Your task to perform on an android device: turn on the 24-hour format for clock Image 0: 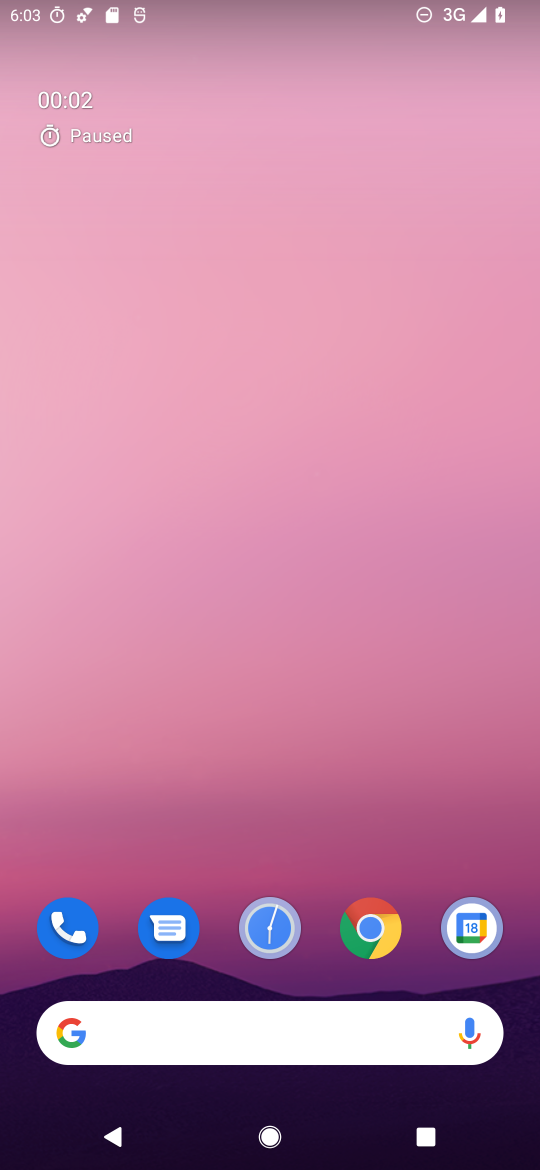
Step 0: drag from (348, 827) to (472, 25)
Your task to perform on an android device: turn on the 24-hour format for clock Image 1: 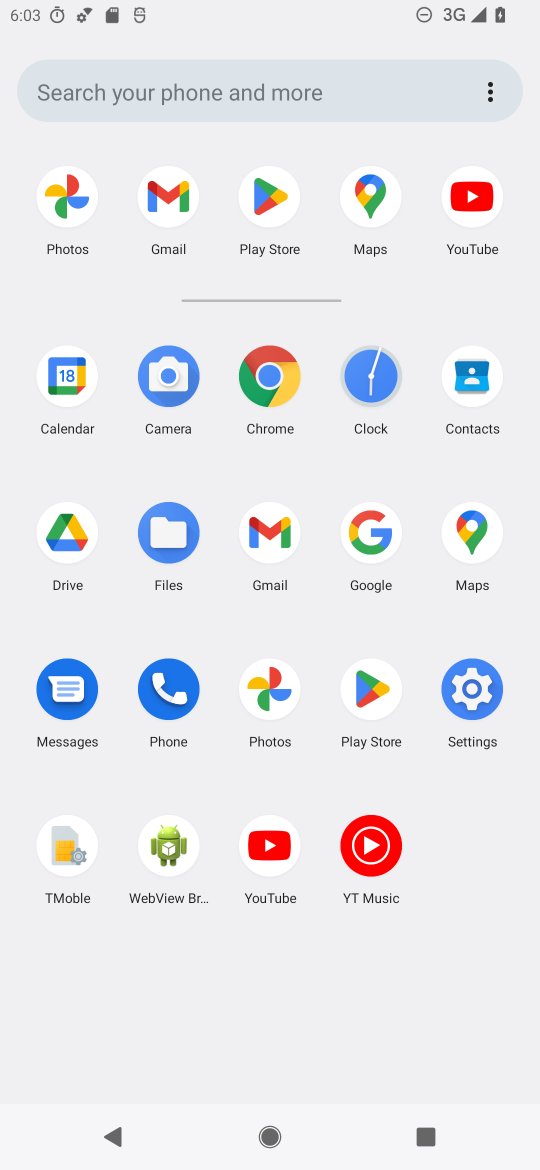
Step 1: click (376, 359)
Your task to perform on an android device: turn on the 24-hour format for clock Image 2: 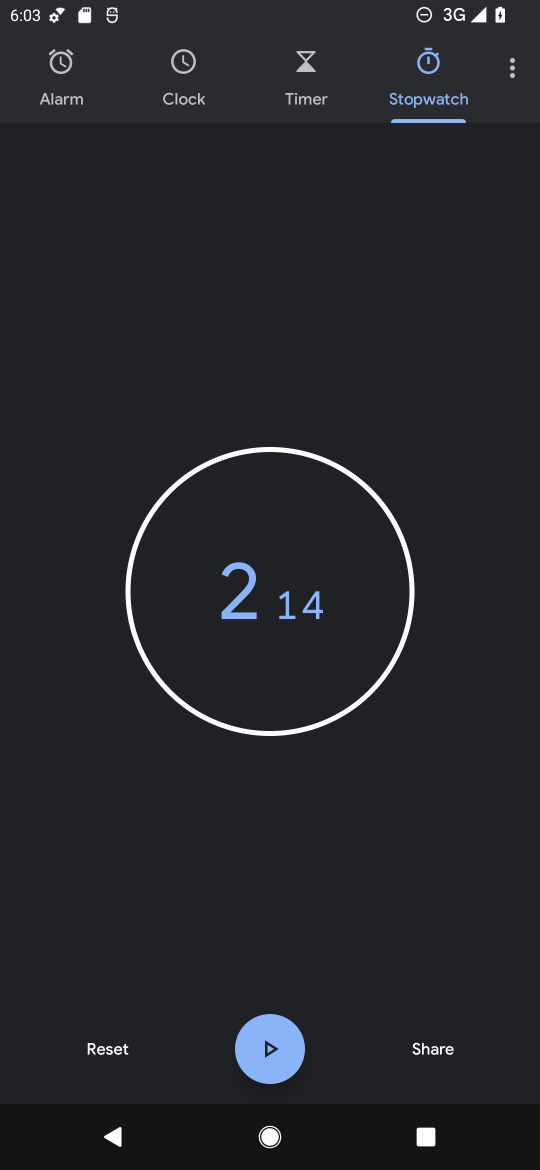
Step 2: click (510, 66)
Your task to perform on an android device: turn on the 24-hour format for clock Image 3: 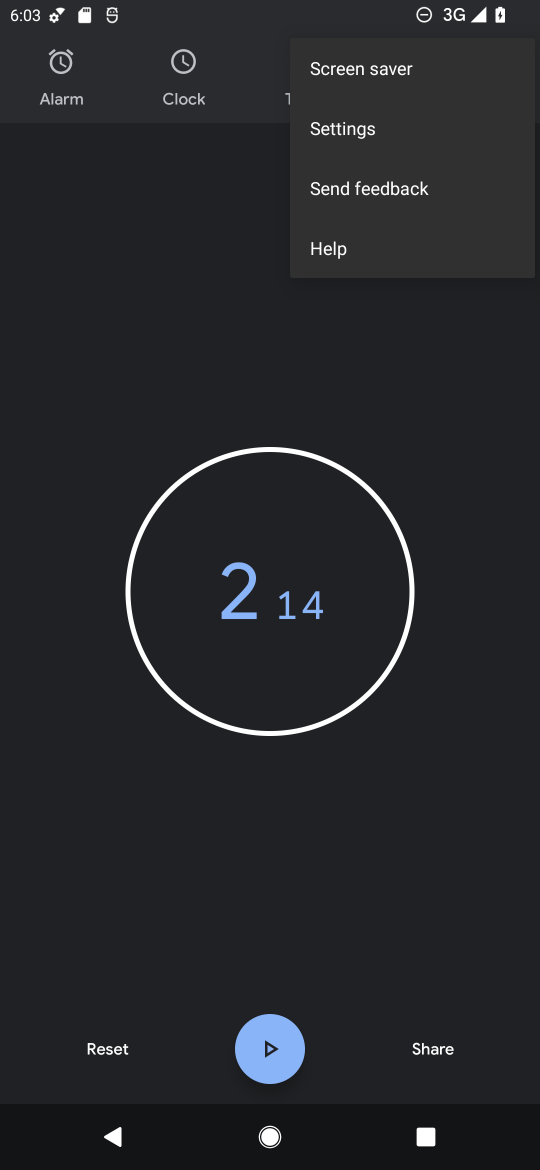
Step 3: click (356, 140)
Your task to perform on an android device: turn on the 24-hour format for clock Image 4: 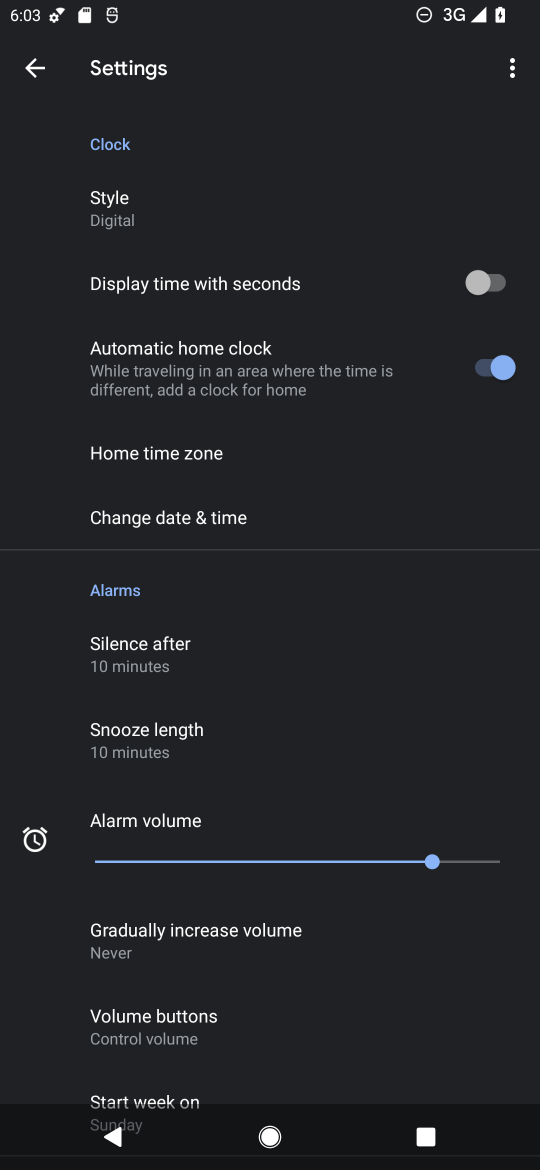
Step 4: click (196, 519)
Your task to perform on an android device: turn on the 24-hour format for clock Image 5: 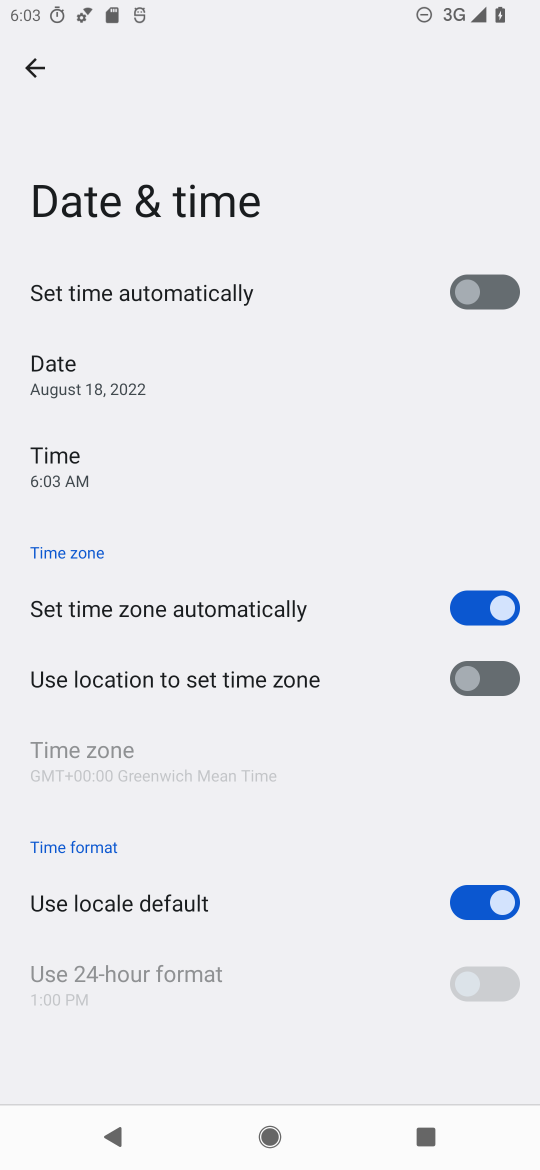
Step 5: click (505, 910)
Your task to perform on an android device: turn on the 24-hour format for clock Image 6: 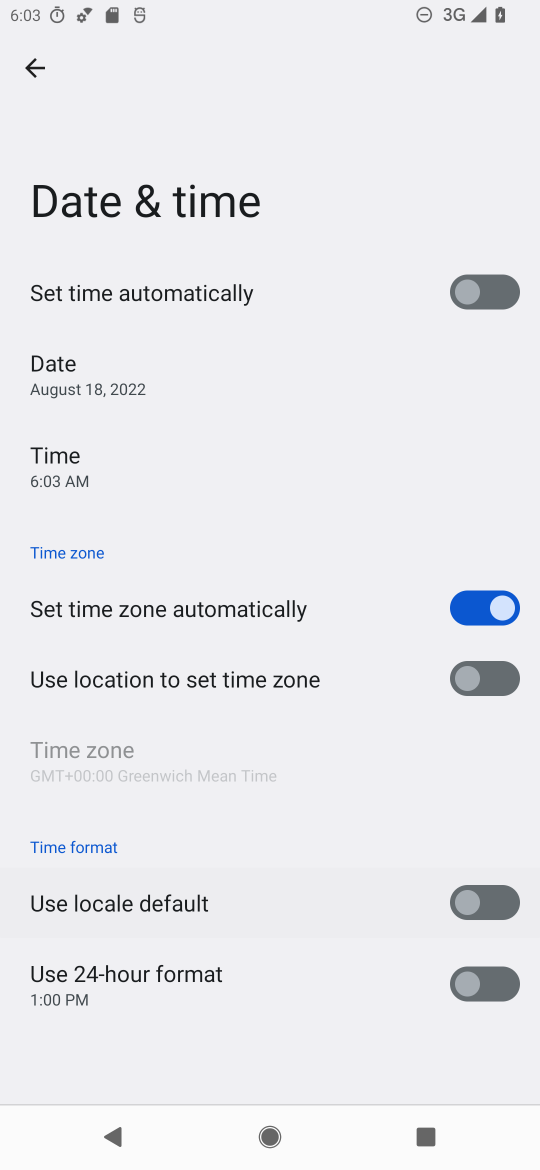
Step 6: click (485, 989)
Your task to perform on an android device: turn on the 24-hour format for clock Image 7: 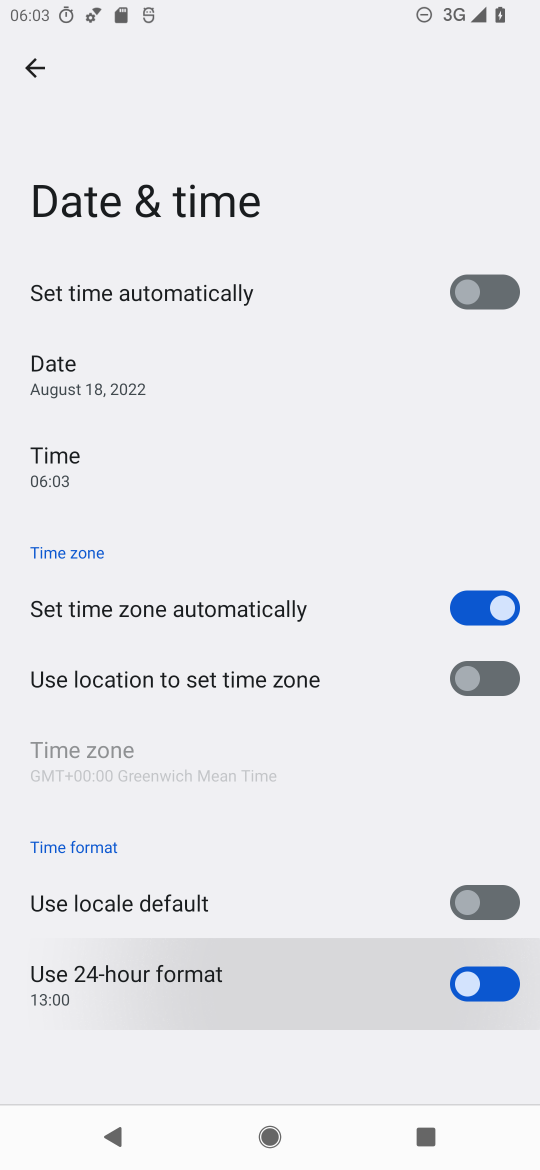
Step 7: task complete